Your task to perform on an android device: Go to ESPN.com Image 0: 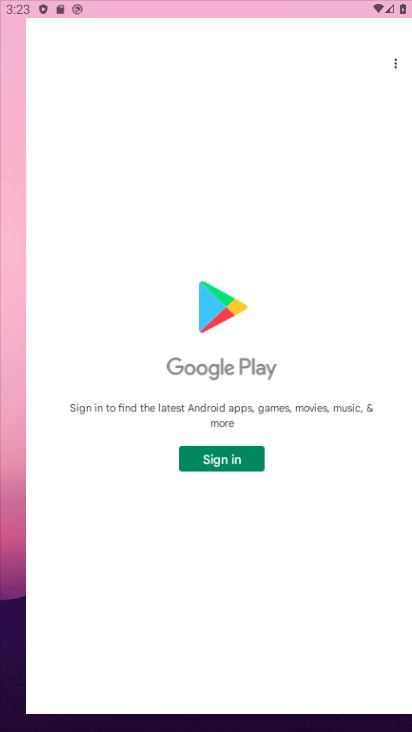
Step 0: click (284, 657)
Your task to perform on an android device: Go to ESPN.com Image 1: 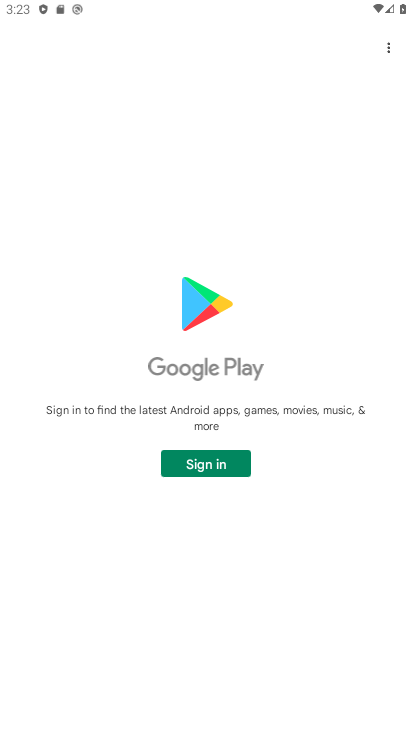
Step 1: press home button
Your task to perform on an android device: Go to ESPN.com Image 2: 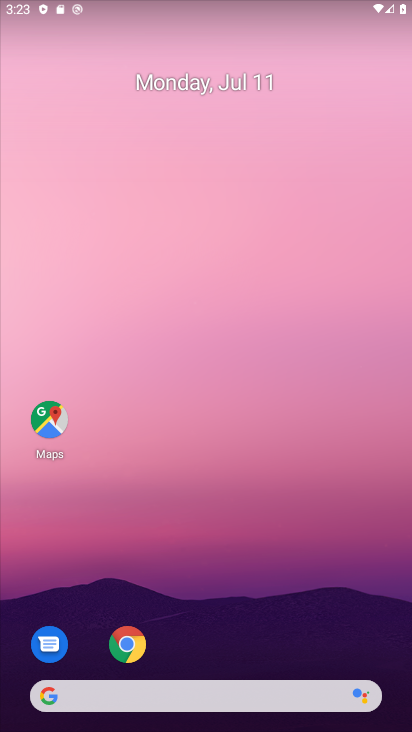
Step 2: drag from (240, 637) to (258, 255)
Your task to perform on an android device: Go to ESPN.com Image 3: 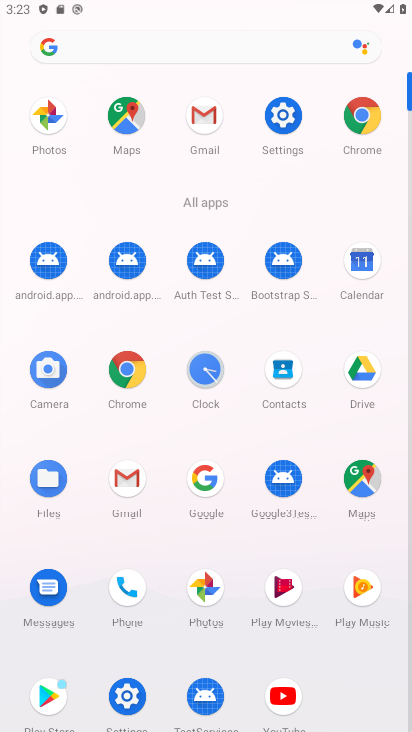
Step 3: click (284, 112)
Your task to perform on an android device: Go to ESPN.com Image 4: 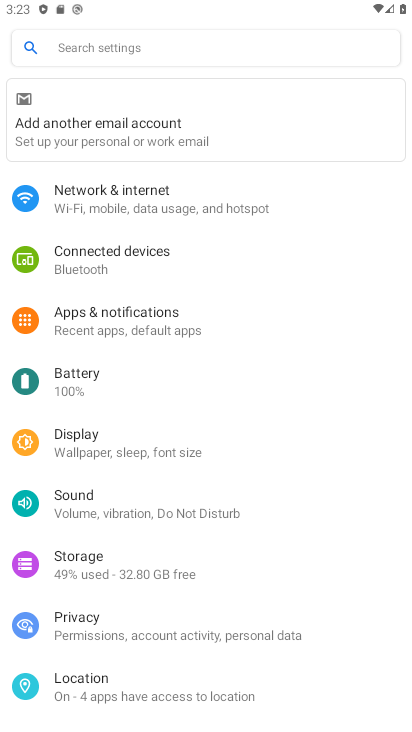
Step 4: press home button
Your task to perform on an android device: Go to ESPN.com Image 5: 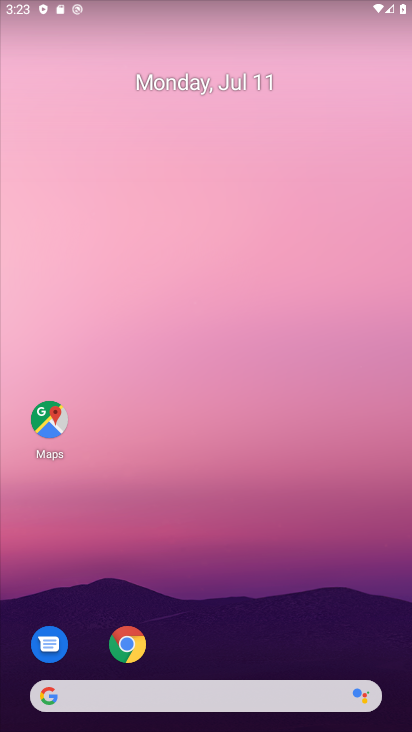
Step 5: drag from (232, 619) to (232, 304)
Your task to perform on an android device: Go to ESPN.com Image 6: 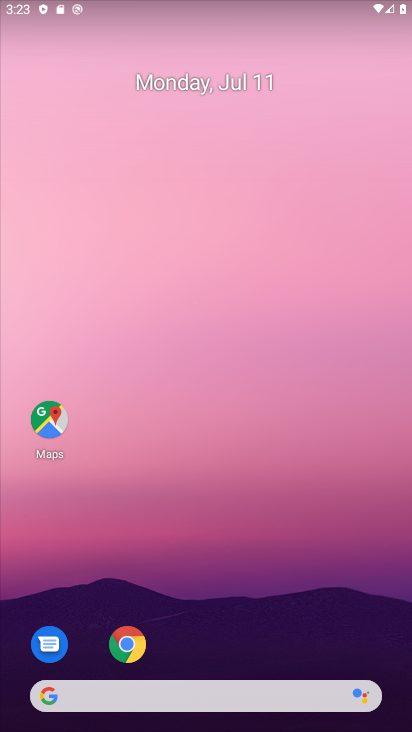
Step 6: drag from (225, 637) to (227, 94)
Your task to perform on an android device: Go to ESPN.com Image 7: 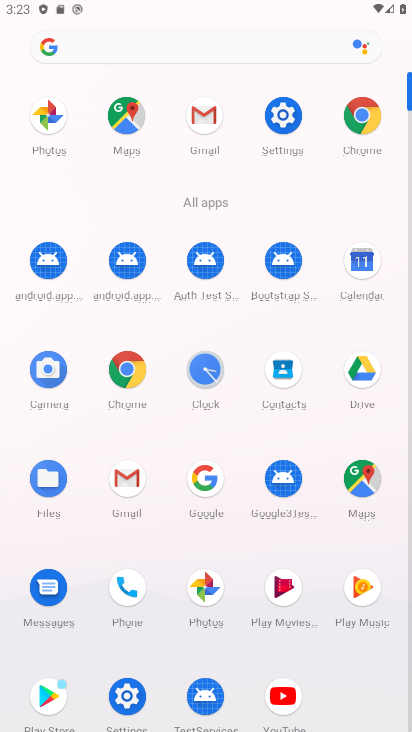
Step 7: click (353, 107)
Your task to perform on an android device: Go to ESPN.com Image 8: 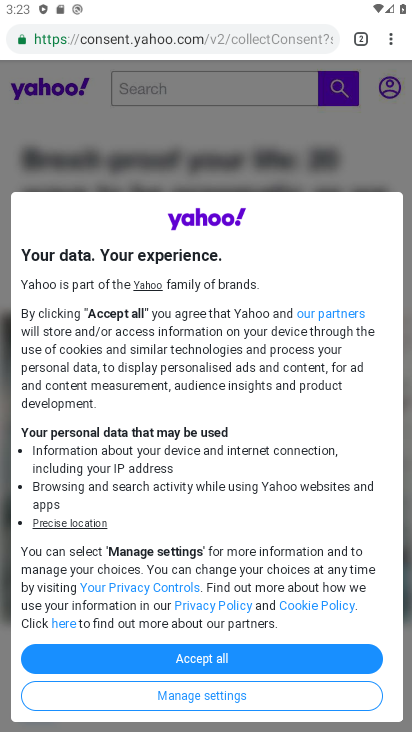
Step 8: click (387, 30)
Your task to perform on an android device: Go to ESPN.com Image 9: 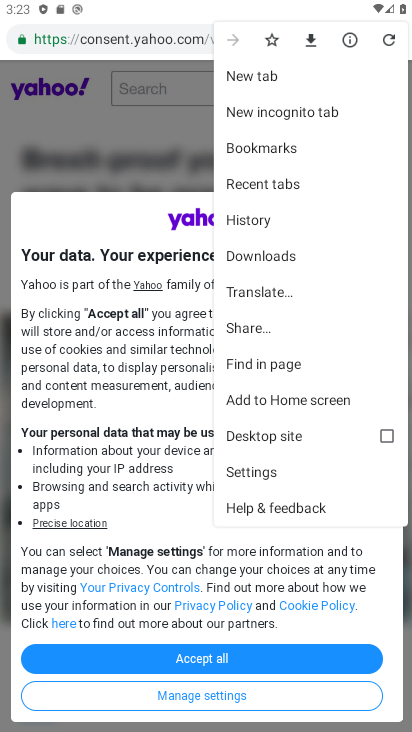
Step 9: click (288, 75)
Your task to perform on an android device: Go to ESPN.com Image 10: 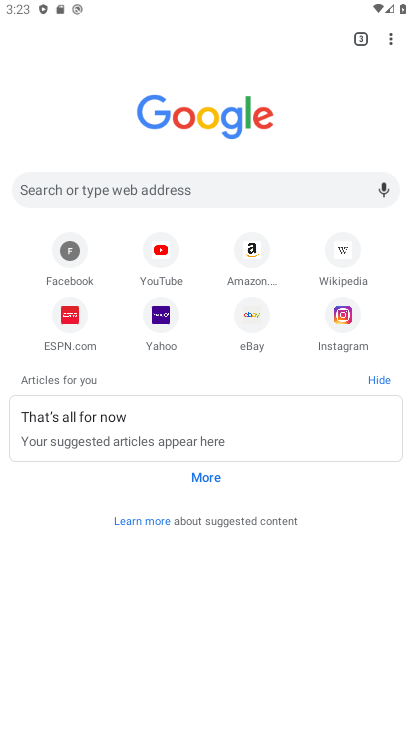
Step 10: click (75, 315)
Your task to perform on an android device: Go to ESPN.com Image 11: 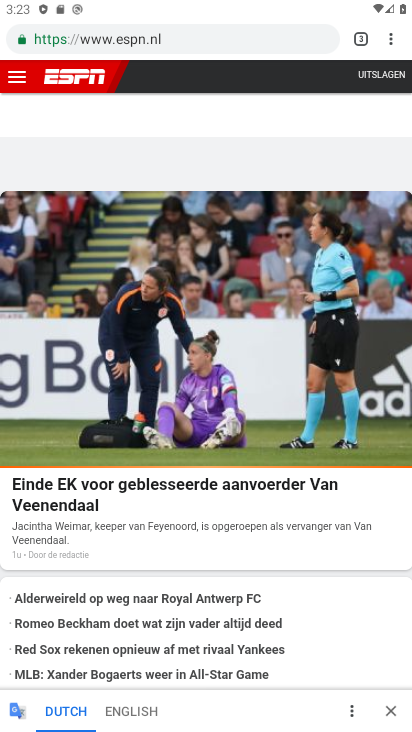
Step 11: task complete